Your task to perform on an android device: Go to CNN.com Image 0: 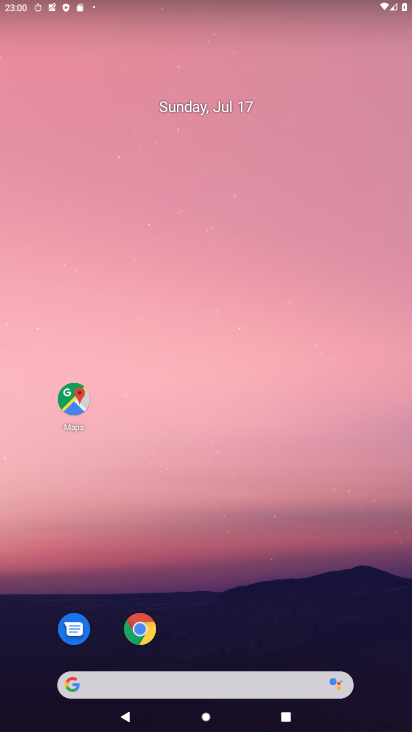
Step 0: click (136, 629)
Your task to perform on an android device: Go to CNN.com Image 1: 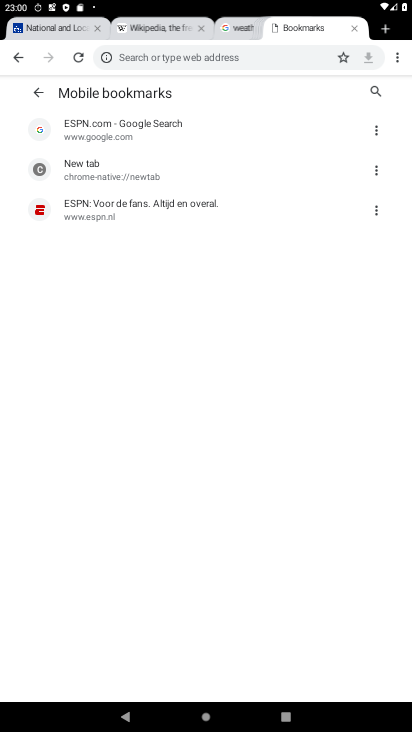
Step 1: click (400, 59)
Your task to perform on an android device: Go to CNN.com Image 2: 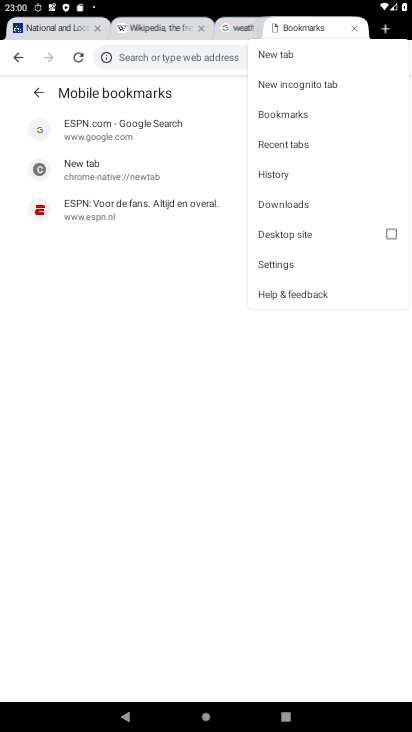
Step 2: click (281, 54)
Your task to perform on an android device: Go to CNN.com Image 3: 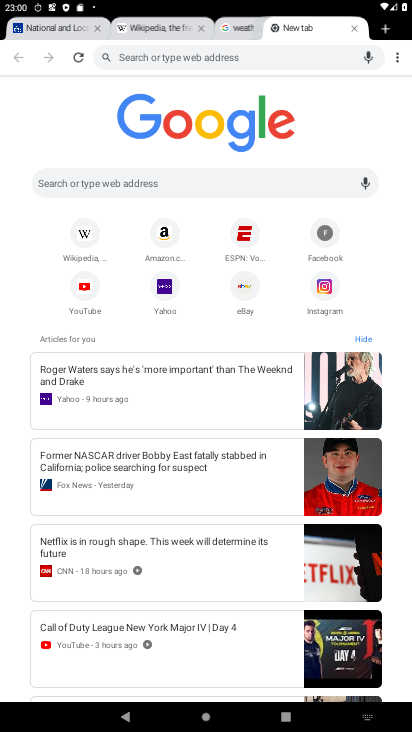
Step 3: click (249, 187)
Your task to perform on an android device: Go to CNN.com Image 4: 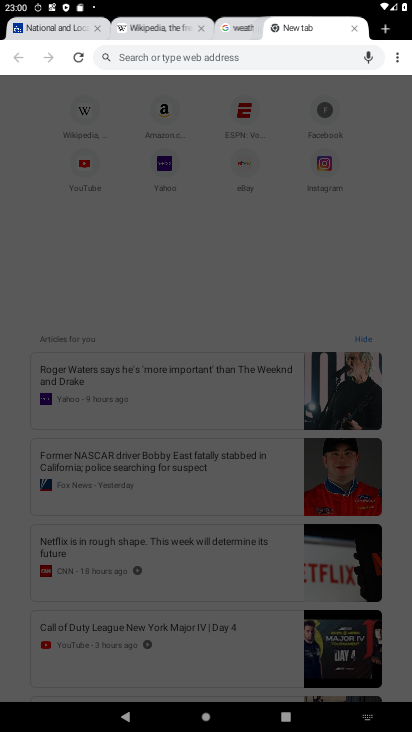
Step 4: type "CNN"
Your task to perform on an android device: Go to CNN.com Image 5: 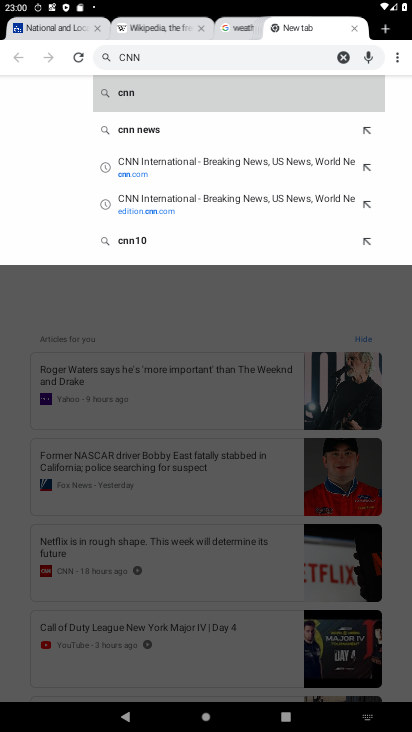
Step 5: click (121, 90)
Your task to perform on an android device: Go to CNN.com Image 6: 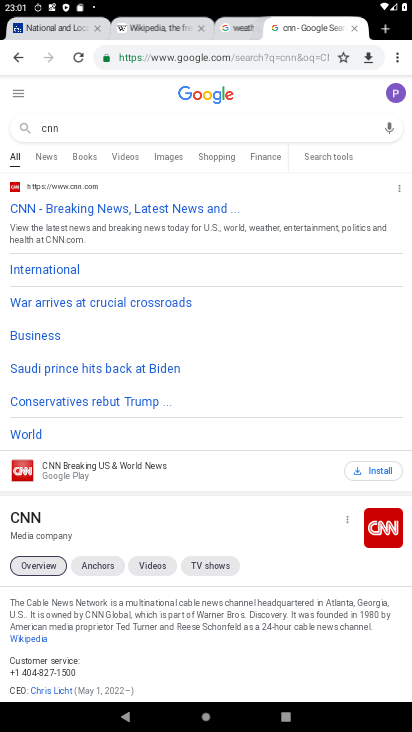
Step 6: click (37, 207)
Your task to perform on an android device: Go to CNN.com Image 7: 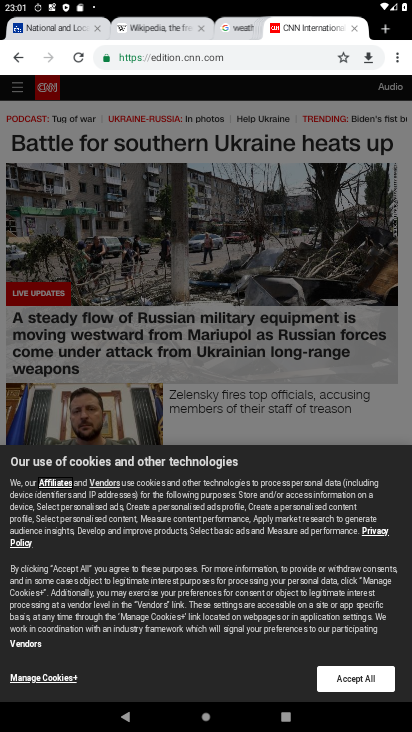
Step 7: task complete